Your task to perform on an android device: Open the map Image 0: 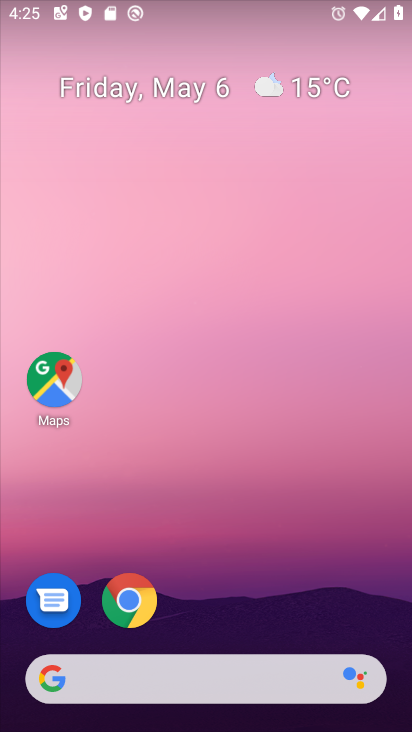
Step 0: drag from (244, 610) to (288, 65)
Your task to perform on an android device: Open the map Image 1: 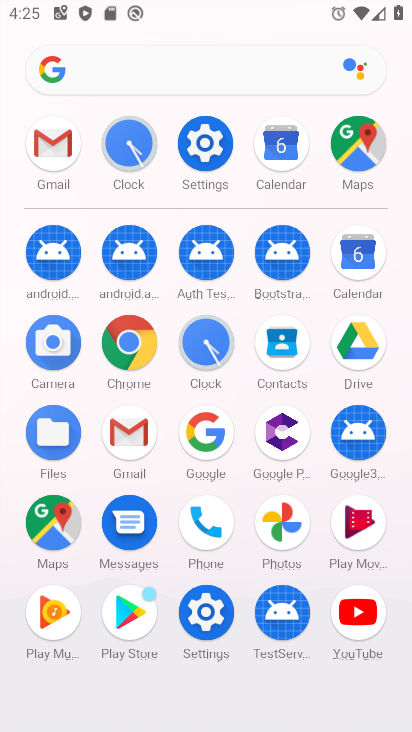
Step 1: click (55, 523)
Your task to perform on an android device: Open the map Image 2: 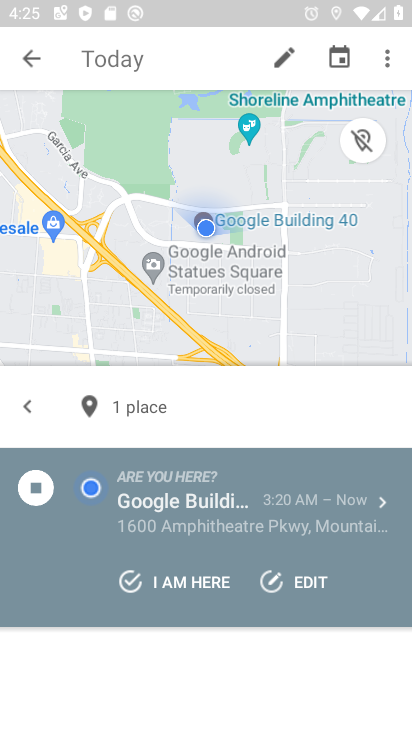
Step 2: click (55, 70)
Your task to perform on an android device: Open the map Image 3: 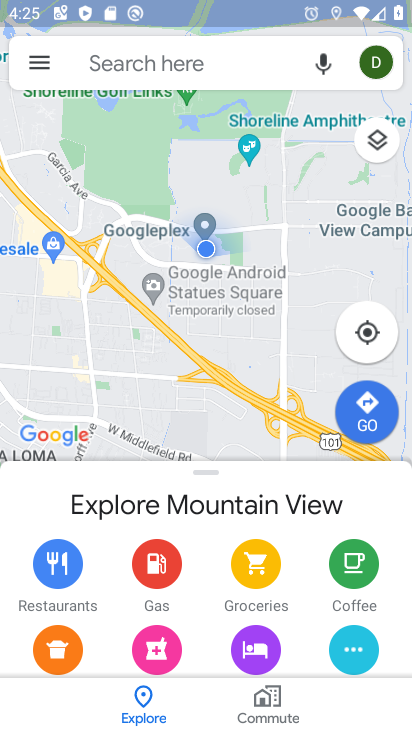
Step 3: task complete